Your task to perform on an android device: Do I have any events tomorrow? Image 0: 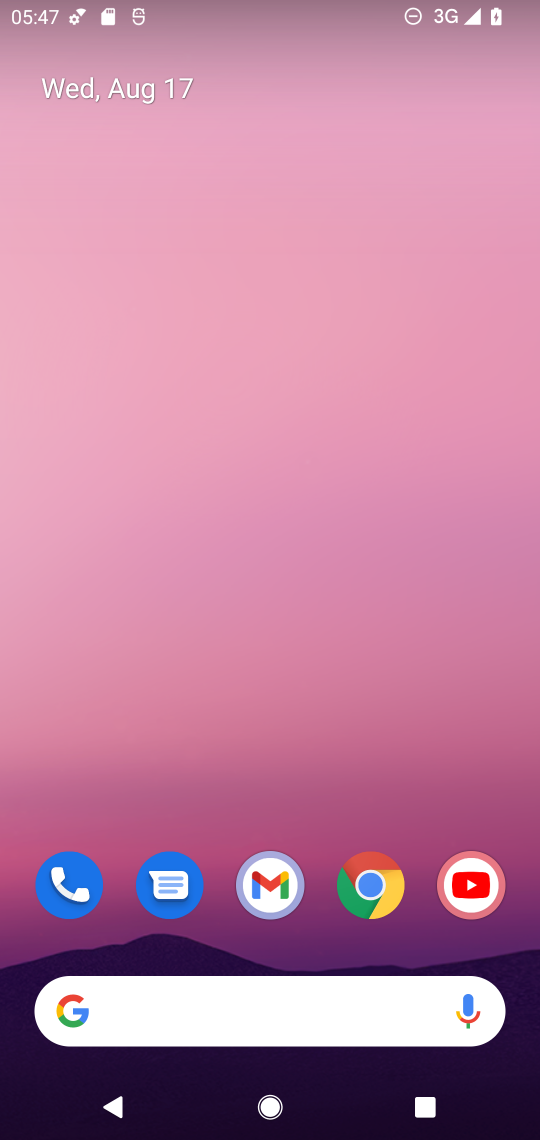
Step 0: click (117, 85)
Your task to perform on an android device: Do I have any events tomorrow? Image 1: 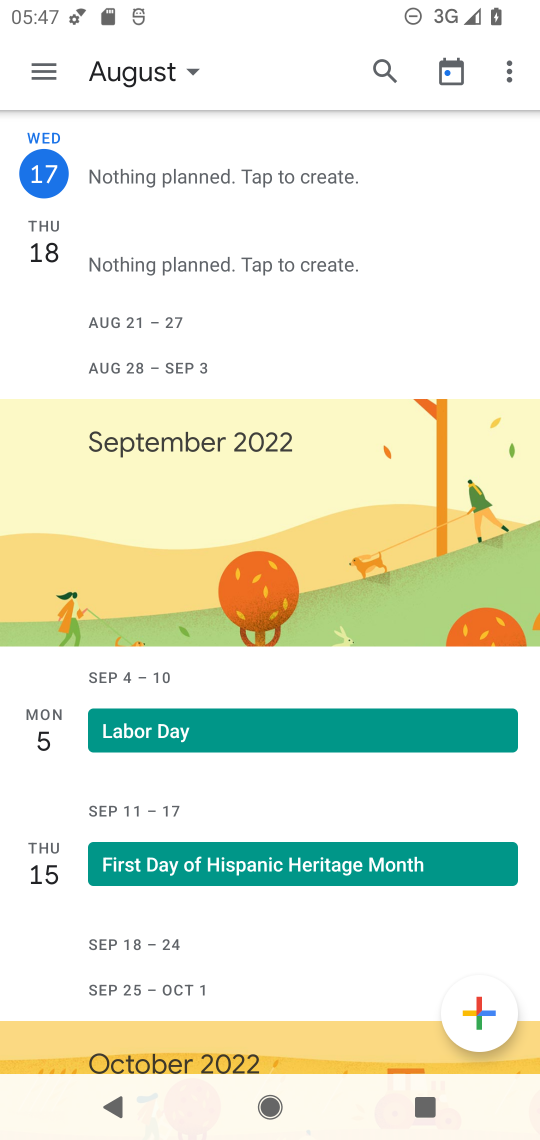
Step 1: click (111, 279)
Your task to perform on an android device: Do I have any events tomorrow? Image 2: 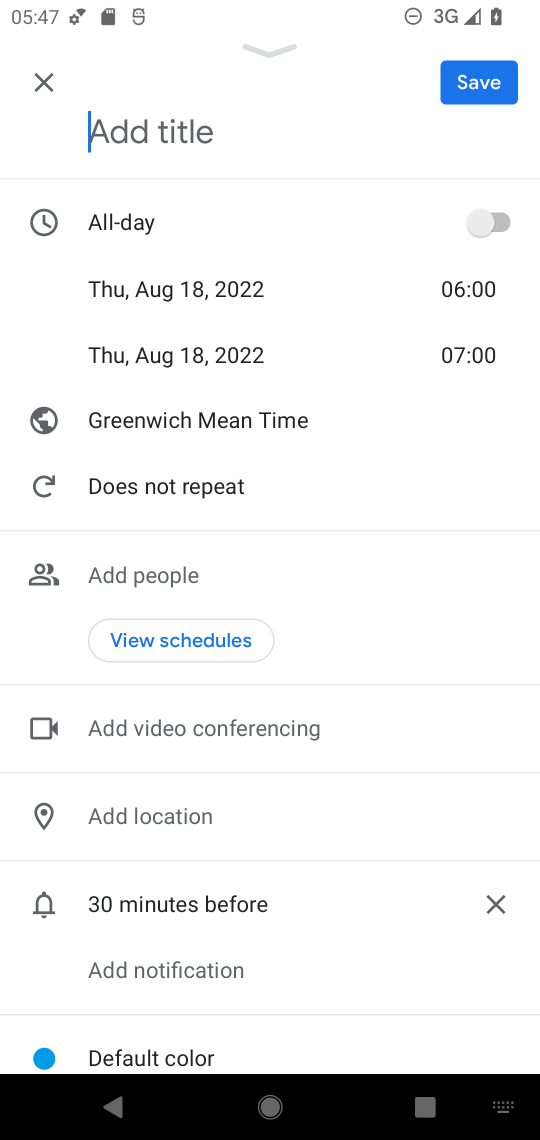
Step 2: click (43, 72)
Your task to perform on an android device: Do I have any events tomorrow? Image 3: 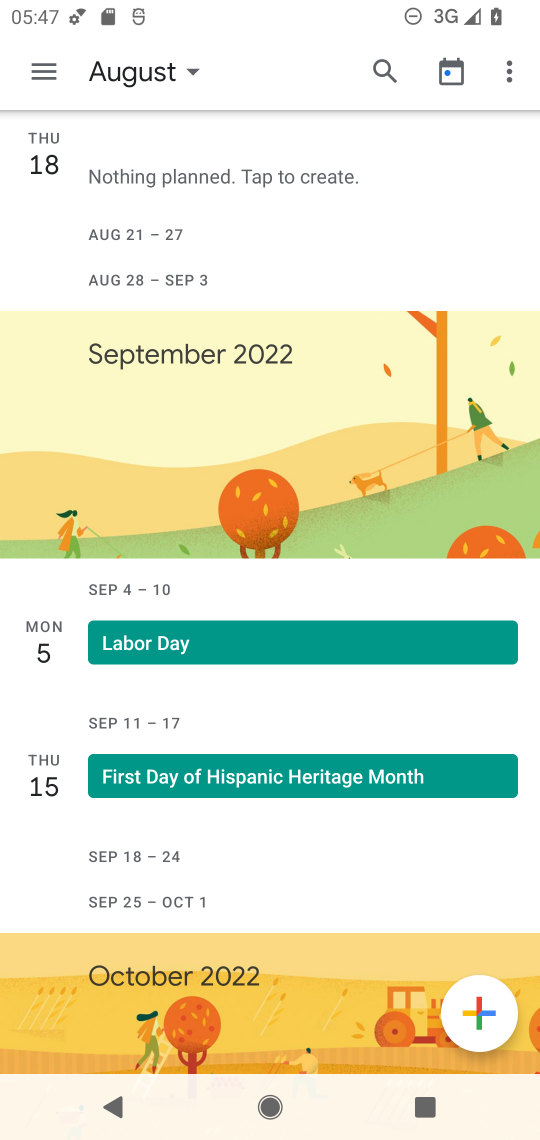
Step 3: task complete